Your task to perform on an android device: add a label to a message in the gmail app Image 0: 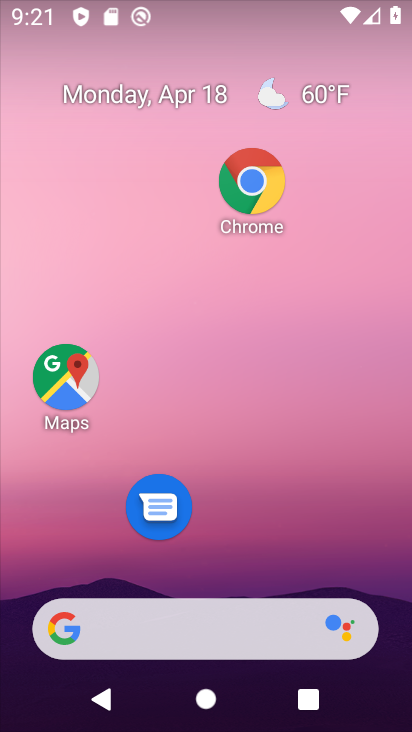
Step 0: drag from (194, 619) to (92, 11)
Your task to perform on an android device: add a label to a message in the gmail app Image 1: 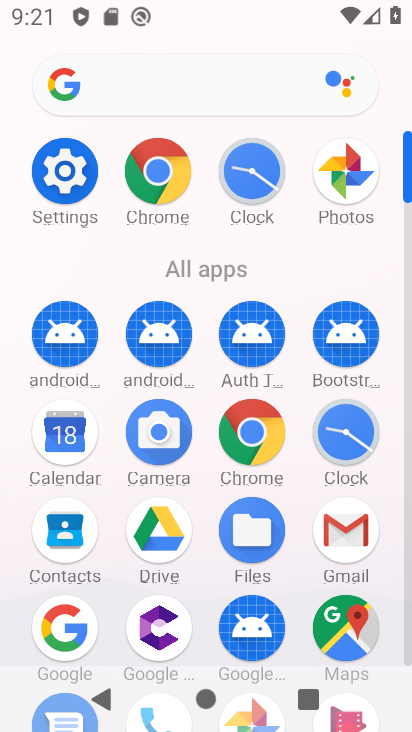
Step 1: click (348, 524)
Your task to perform on an android device: add a label to a message in the gmail app Image 2: 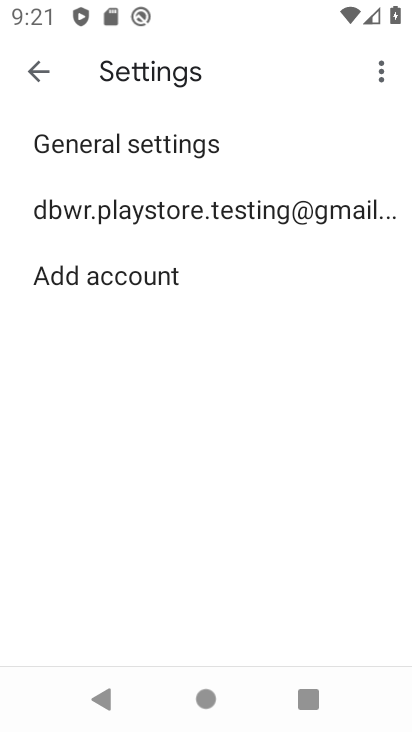
Step 2: click (110, 221)
Your task to perform on an android device: add a label to a message in the gmail app Image 3: 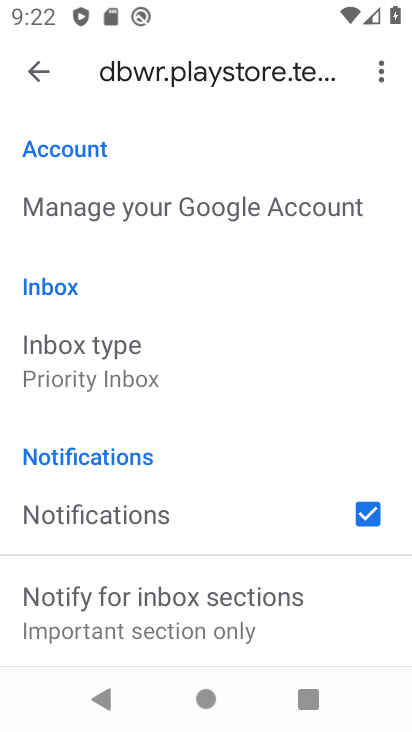
Step 3: press back button
Your task to perform on an android device: add a label to a message in the gmail app Image 4: 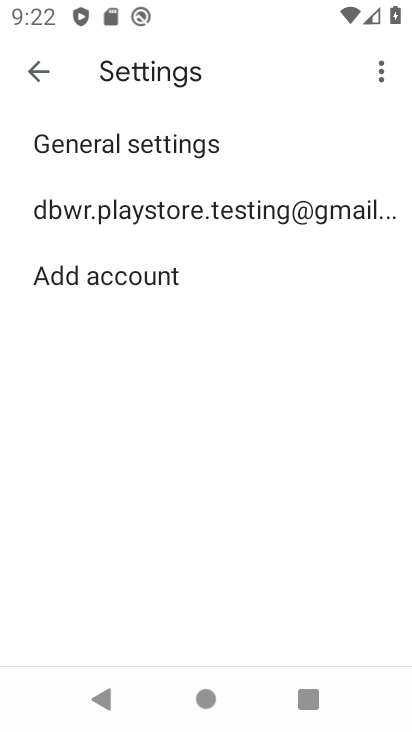
Step 4: press back button
Your task to perform on an android device: add a label to a message in the gmail app Image 5: 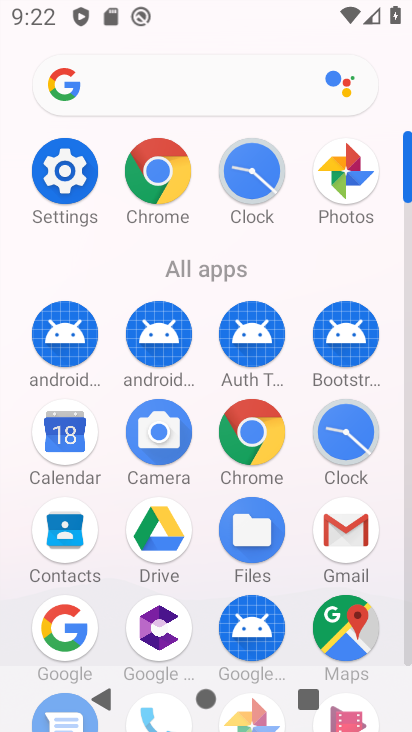
Step 5: click (356, 534)
Your task to perform on an android device: add a label to a message in the gmail app Image 6: 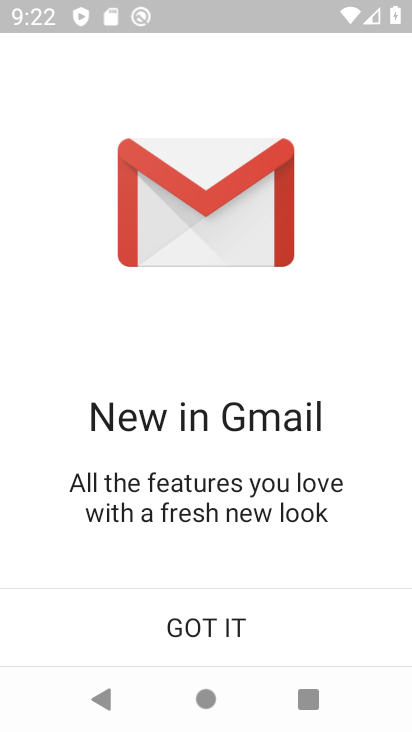
Step 6: click (199, 616)
Your task to perform on an android device: add a label to a message in the gmail app Image 7: 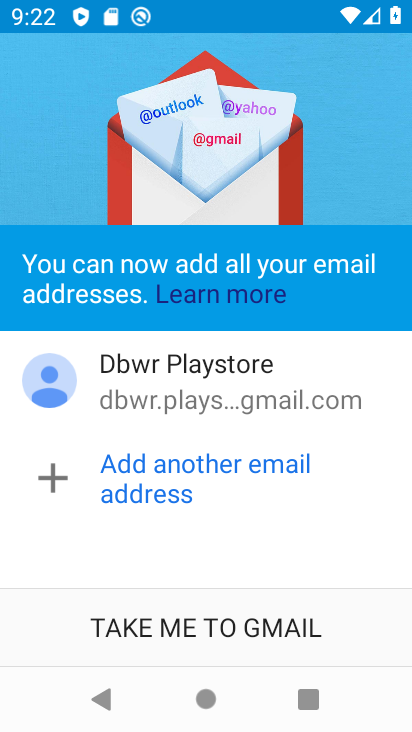
Step 7: click (199, 616)
Your task to perform on an android device: add a label to a message in the gmail app Image 8: 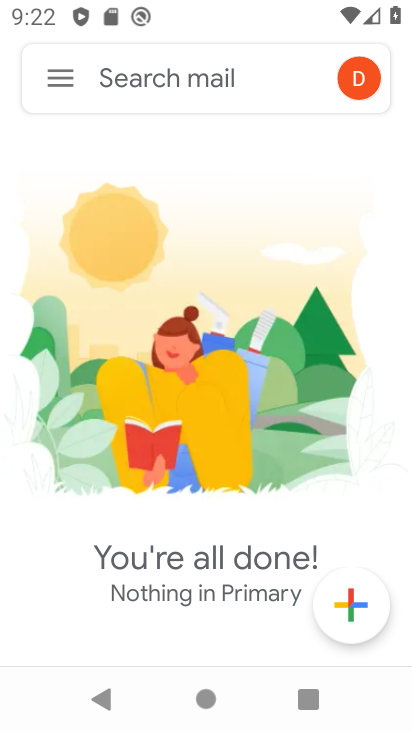
Step 8: click (67, 79)
Your task to perform on an android device: add a label to a message in the gmail app Image 9: 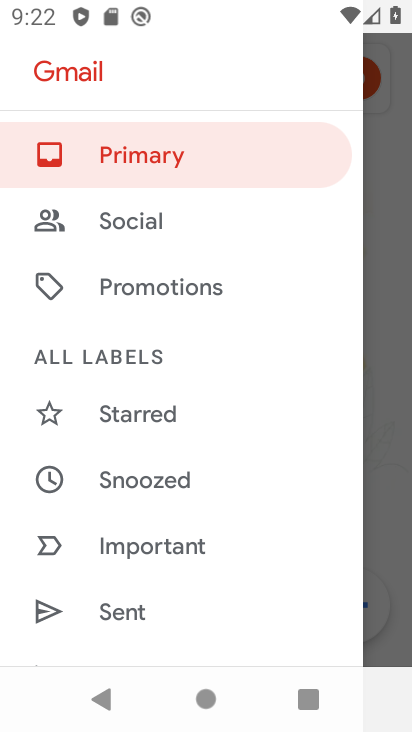
Step 9: drag from (144, 471) to (120, 74)
Your task to perform on an android device: add a label to a message in the gmail app Image 10: 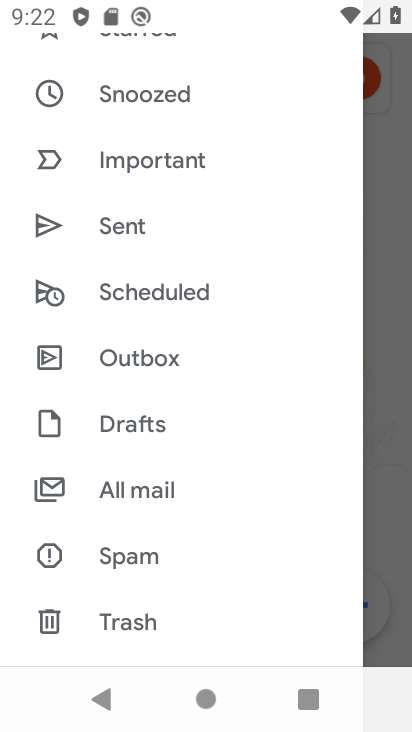
Step 10: click (169, 506)
Your task to perform on an android device: add a label to a message in the gmail app Image 11: 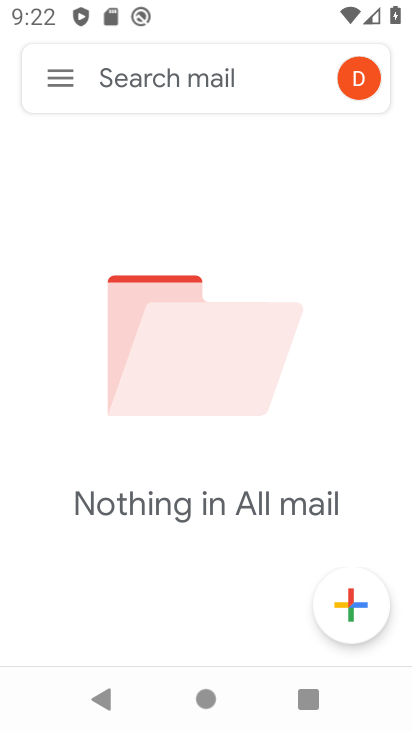
Step 11: task complete